Your task to perform on an android device: turn on bluetooth scan Image 0: 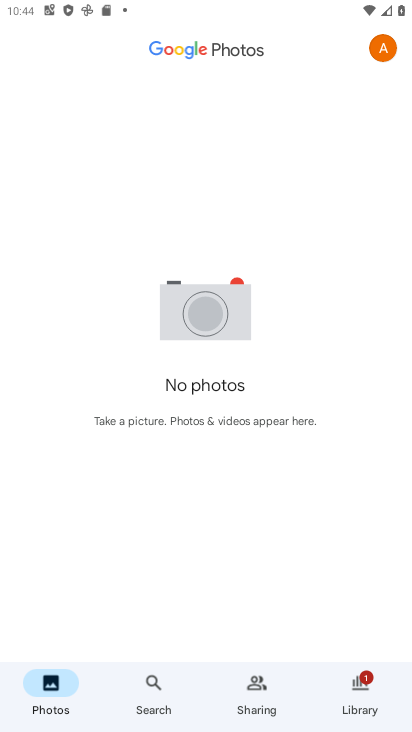
Step 0: press home button
Your task to perform on an android device: turn on bluetooth scan Image 1: 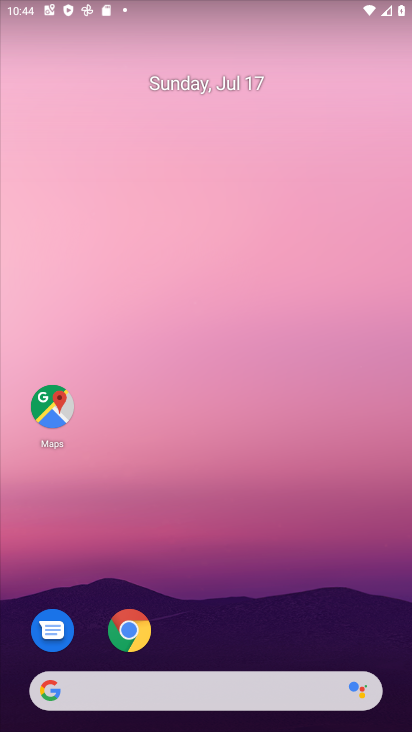
Step 1: drag from (292, 647) to (330, 129)
Your task to perform on an android device: turn on bluetooth scan Image 2: 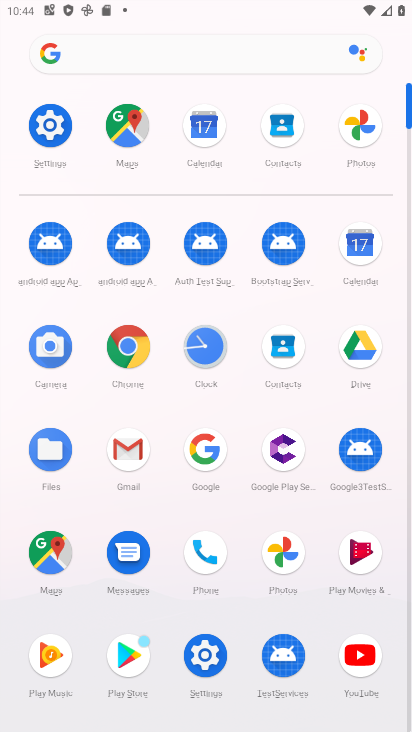
Step 2: click (53, 142)
Your task to perform on an android device: turn on bluetooth scan Image 3: 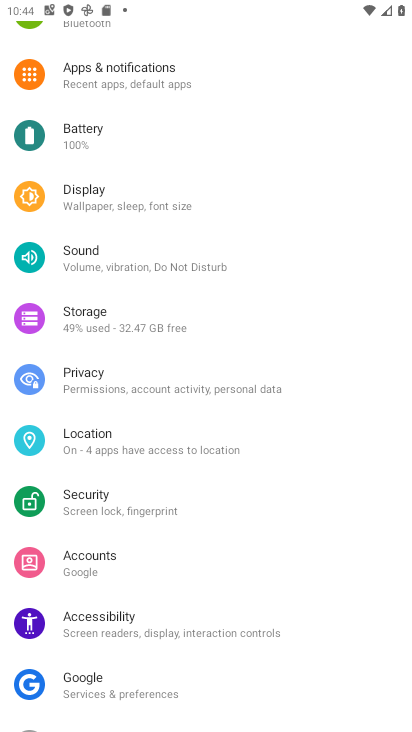
Step 3: click (211, 447)
Your task to perform on an android device: turn on bluetooth scan Image 4: 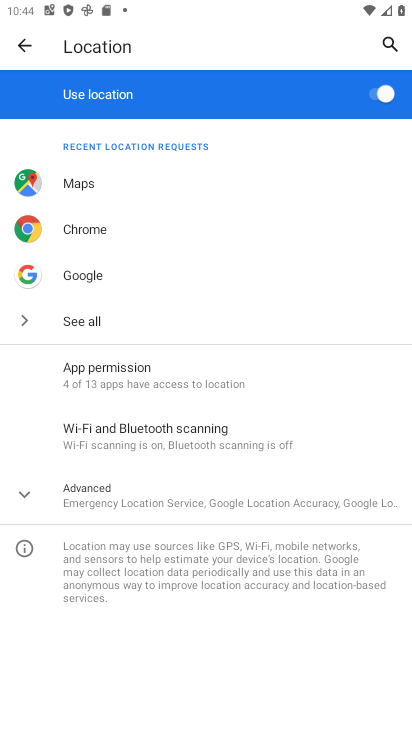
Step 4: click (216, 497)
Your task to perform on an android device: turn on bluetooth scan Image 5: 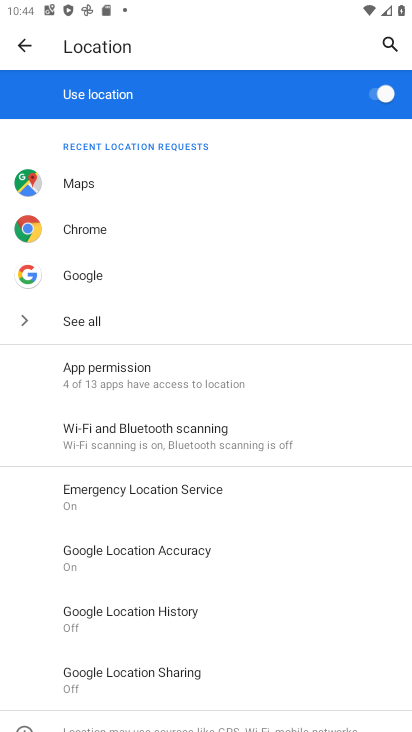
Step 5: click (202, 414)
Your task to perform on an android device: turn on bluetooth scan Image 6: 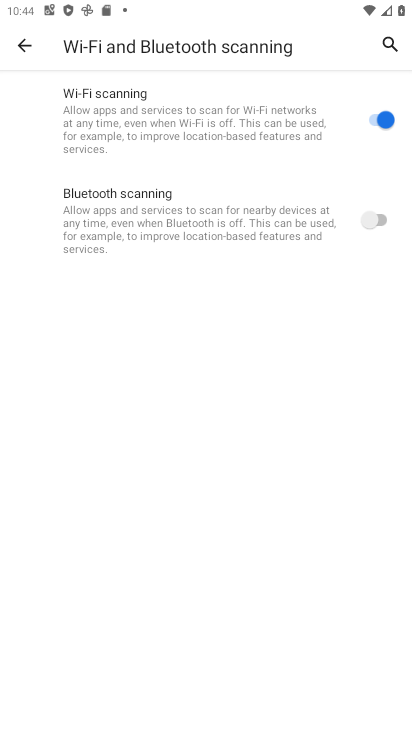
Step 6: click (381, 211)
Your task to perform on an android device: turn on bluetooth scan Image 7: 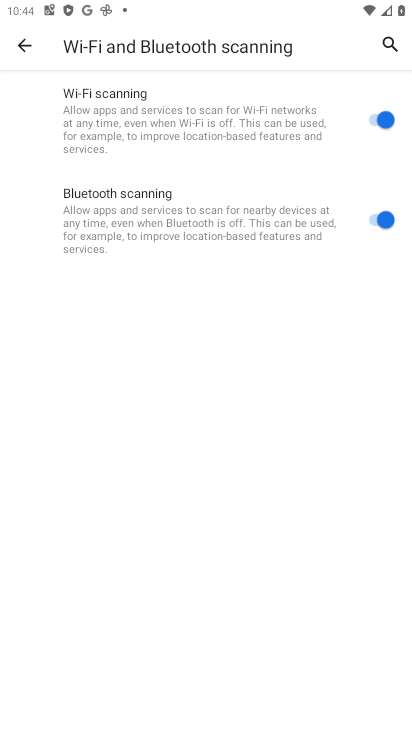
Step 7: task complete